Your task to perform on an android device: turn on sleep mode Image 0: 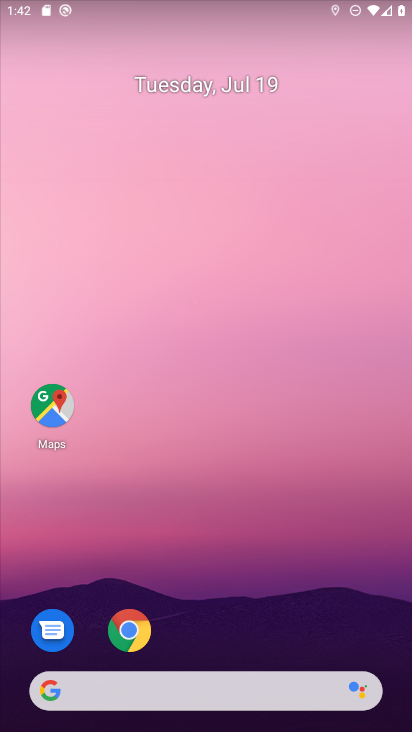
Step 0: press home button
Your task to perform on an android device: turn on sleep mode Image 1: 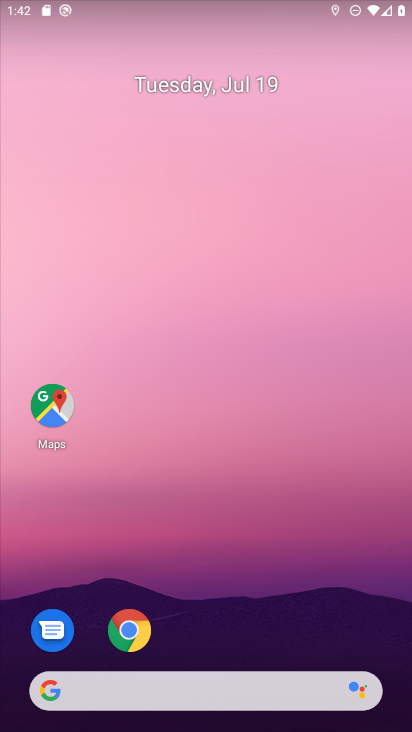
Step 1: drag from (221, 664) to (291, 76)
Your task to perform on an android device: turn on sleep mode Image 2: 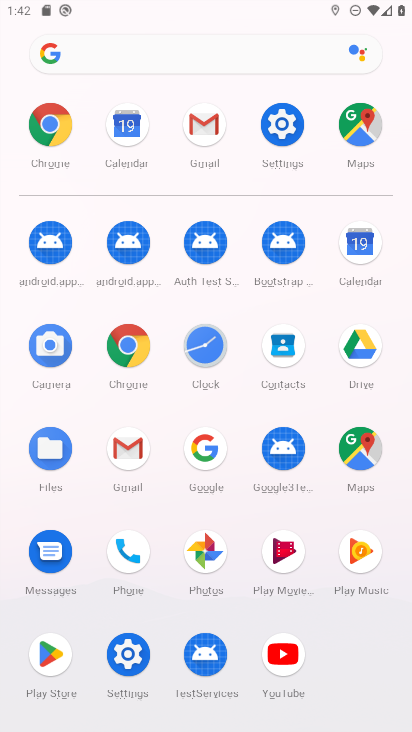
Step 2: click (284, 149)
Your task to perform on an android device: turn on sleep mode Image 3: 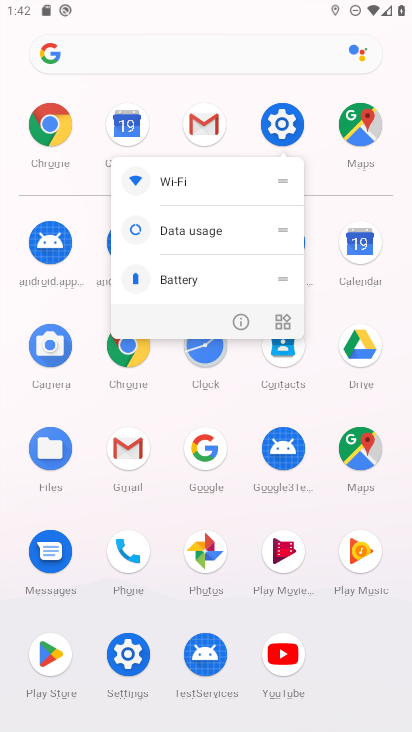
Step 3: click (290, 122)
Your task to perform on an android device: turn on sleep mode Image 4: 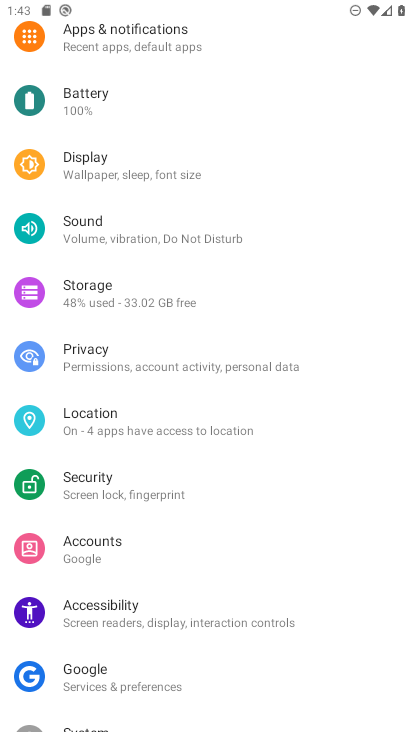
Step 4: click (110, 172)
Your task to perform on an android device: turn on sleep mode Image 5: 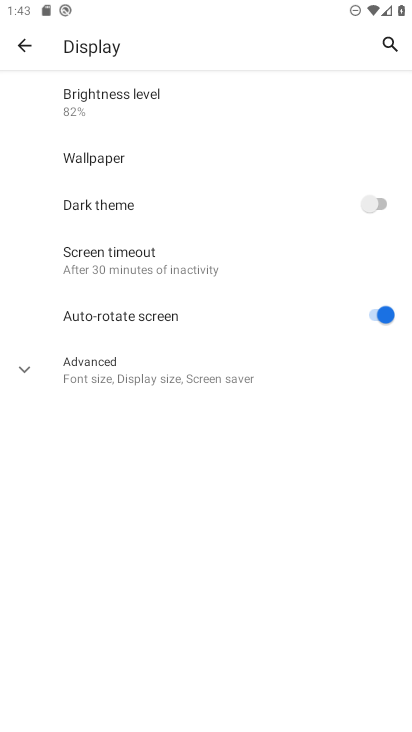
Step 5: click (85, 378)
Your task to perform on an android device: turn on sleep mode Image 6: 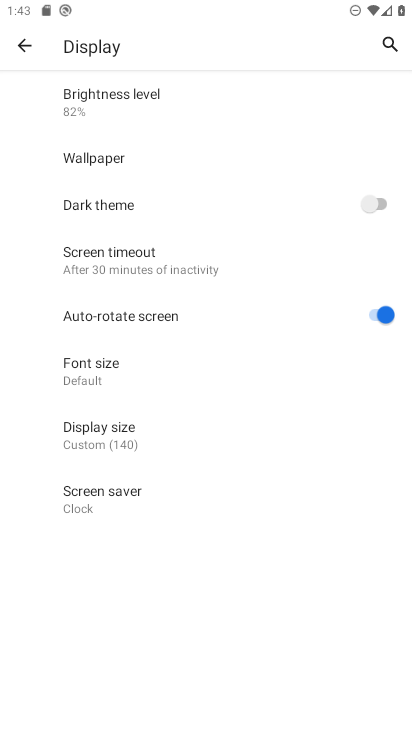
Step 6: task complete